Your task to perform on an android device: toggle notifications settings in the gmail app Image 0: 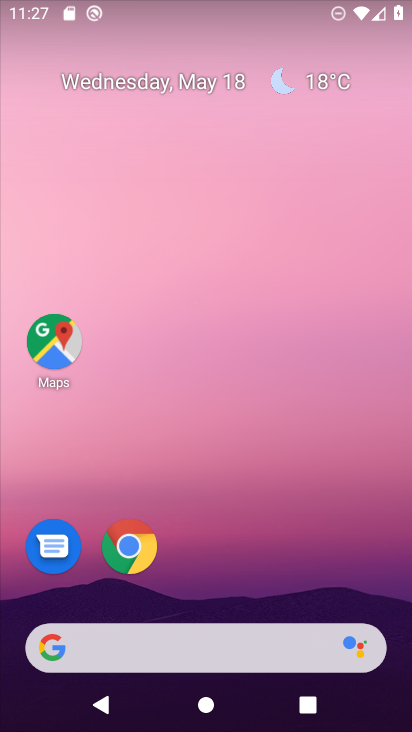
Step 0: drag from (160, 715) to (156, 91)
Your task to perform on an android device: toggle notifications settings in the gmail app Image 1: 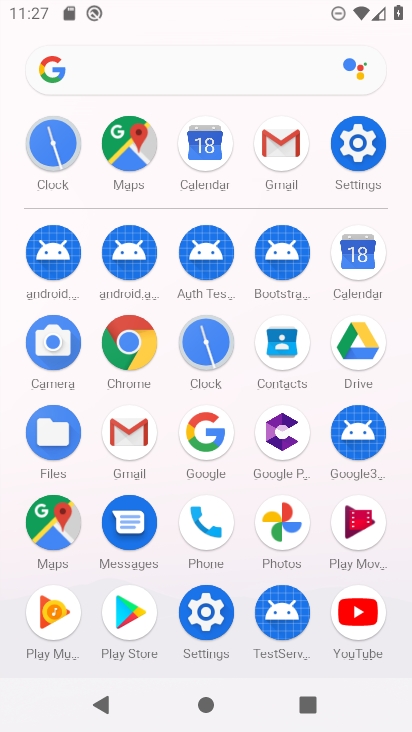
Step 1: click (276, 124)
Your task to perform on an android device: toggle notifications settings in the gmail app Image 2: 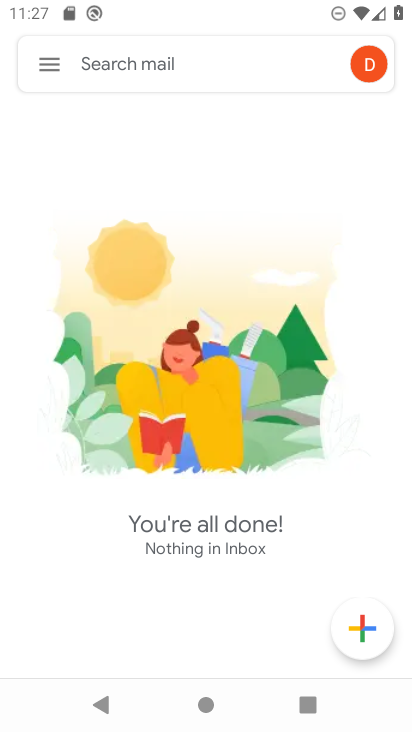
Step 2: click (49, 65)
Your task to perform on an android device: toggle notifications settings in the gmail app Image 3: 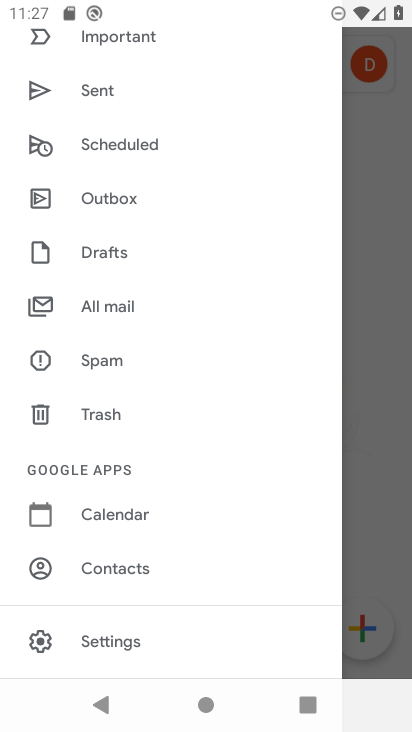
Step 3: click (129, 634)
Your task to perform on an android device: toggle notifications settings in the gmail app Image 4: 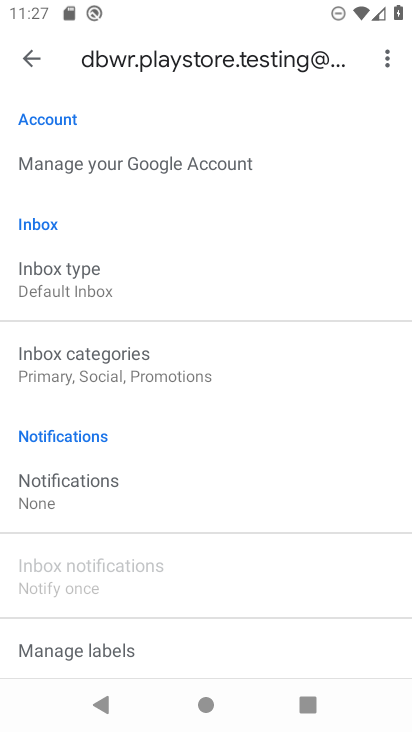
Step 4: click (64, 479)
Your task to perform on an android device: toggle notifications settings in the gmail app Image 5: 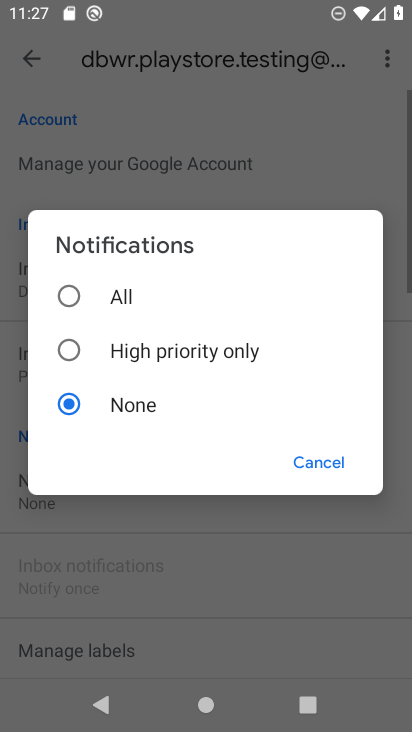
Step 5: click (68, 293)
Your task to perform on an android device: toggle notifications settings in the gmail app Image 6: 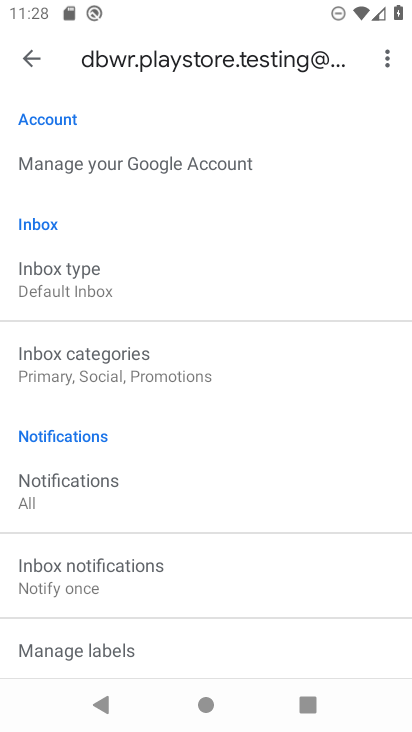
Step 6: task complete